Your task to perform on an android device: See recent photos Image 0: 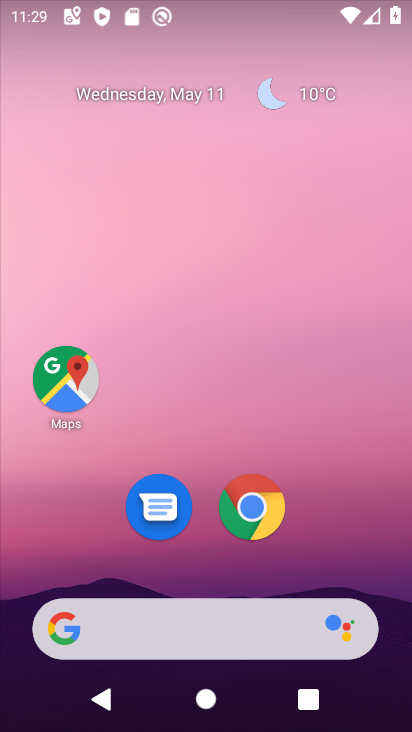
Step 0: drag from (362, 529) to (300, 87)
Your task to perform on an android device: See recent photos Image 1: 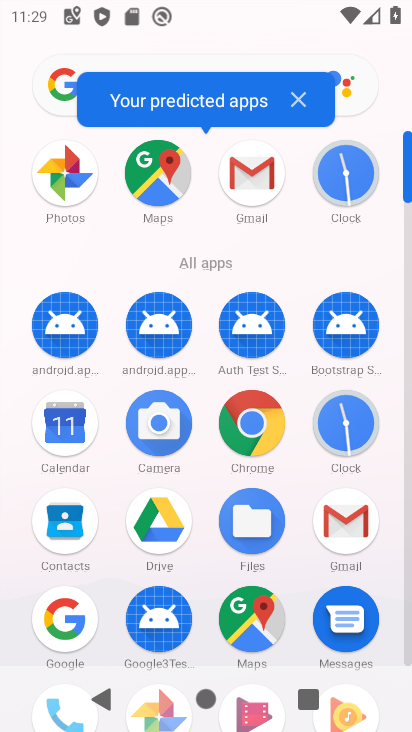
Step 1: drag from (212, 567) to (190, 423)
Your task to perform on an android device: See recent photos Image 2: 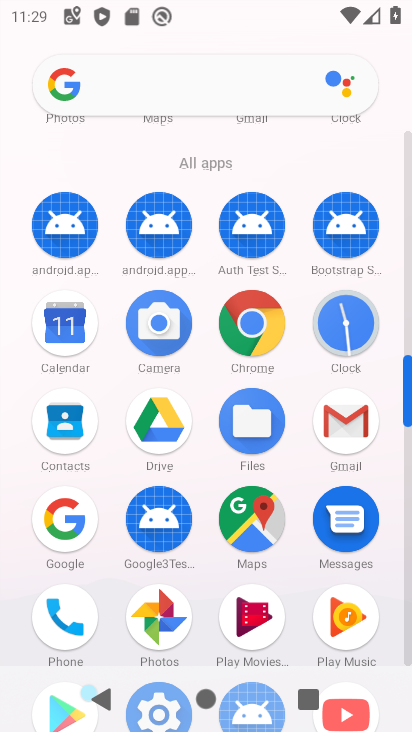
Step 2: click (164, 615)
Your task to perform on an android device: See recent photos Image 3: 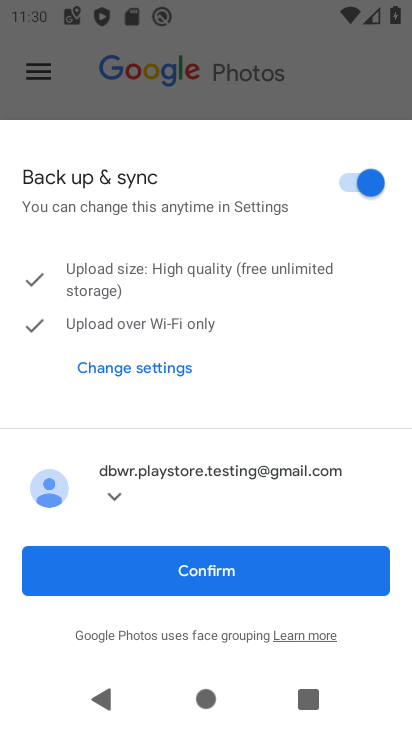
Step 3: click (200, 581)
Your task to perform on an android device: See recent photos Image 4: 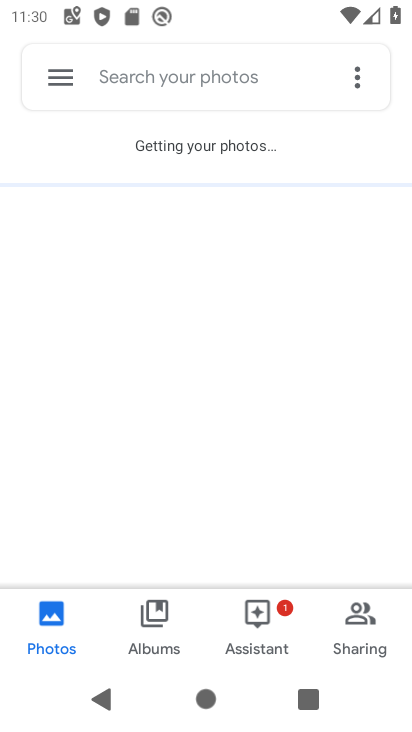
Step 4: task complete